Your task to perform on an android device: find which apps use the phone's location Image 0: 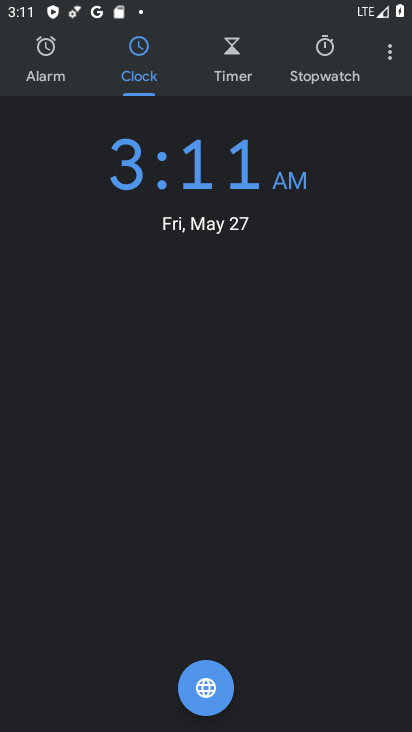
Step 0: press home button
Your task to perform on an android device: find which apps use the phone's location Image 1: 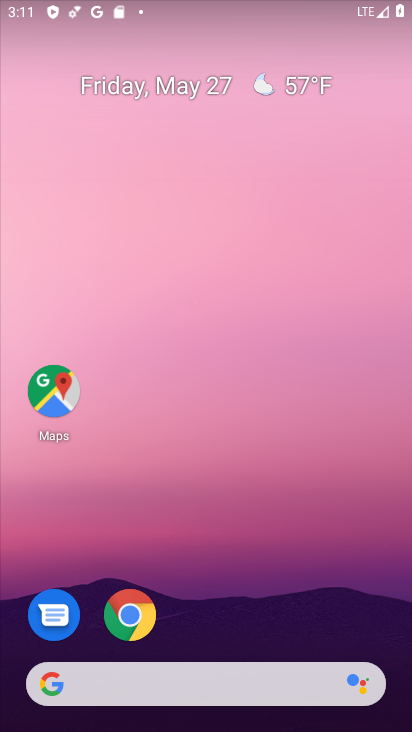
Step 1: drag from (214, 634) to (231, 112)
Your task to perform on an android device: find which apps use the phone's location Image 2: 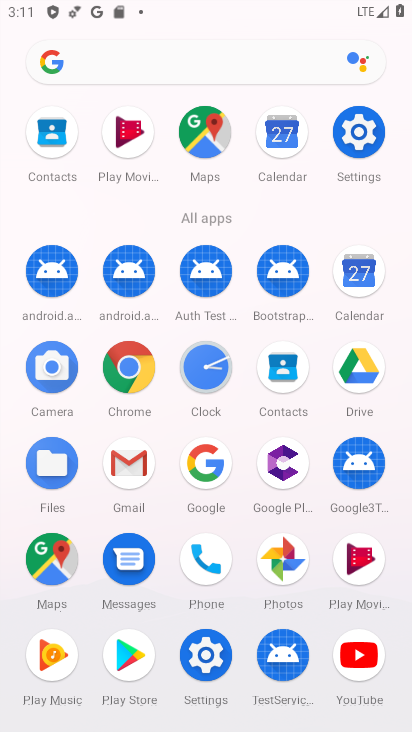
Step 2: click (351, 136)
Your task to perform on an android device: find which apps use the phone's location Image 3: 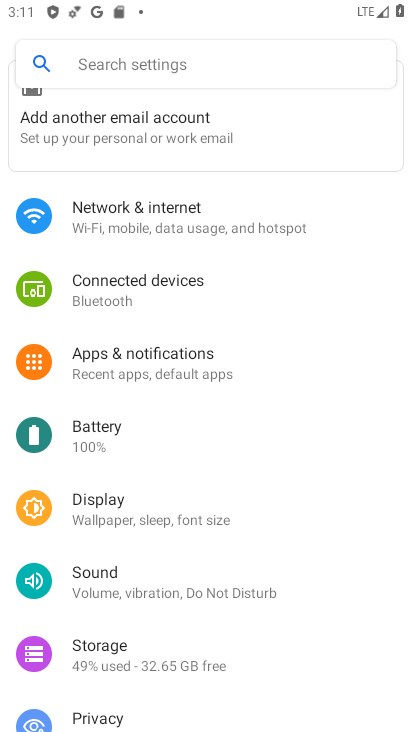
Step 3: drag from (106, 662) to (147, 259)
Your task to perform on an android device: find which apps use the phone's location Image 4: 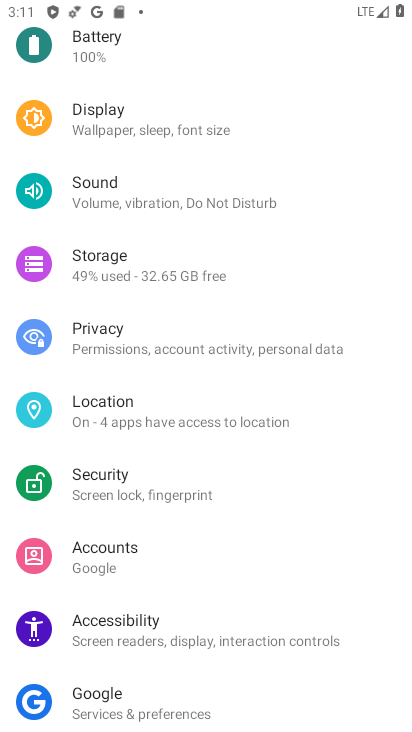
Step 4: click (96, 415)
Your task to perform on an android device: find which apps use the phone's location Image 5: 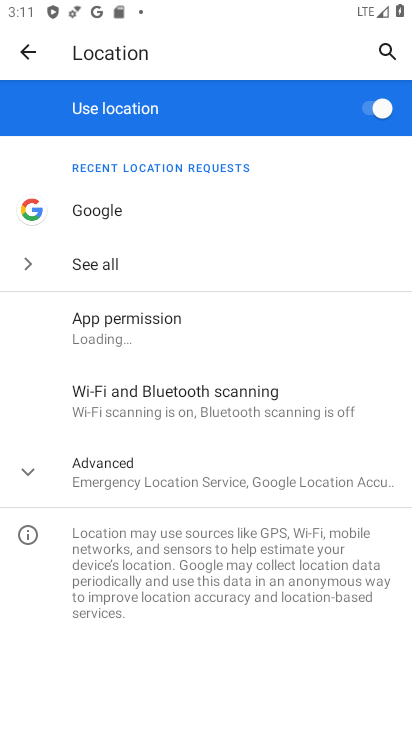
Step 5: click (108, 461)
Your task to perform on an android device: find which apps use the phone's location Image 6: 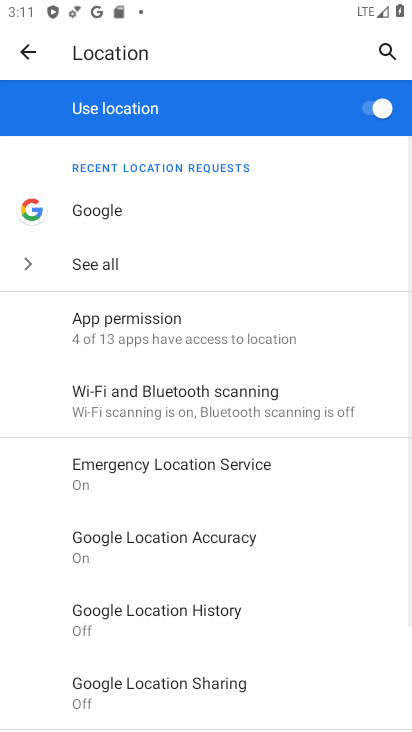
Step 6: click (142, 333)
Your task to perform on an android device: find which apps use the phone's location Image 7: 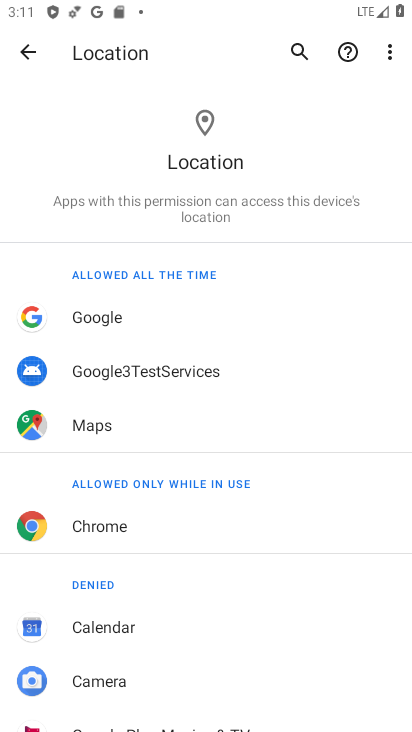
Step 7: task complete